Your task to perform on an android device: check android version Image 0: 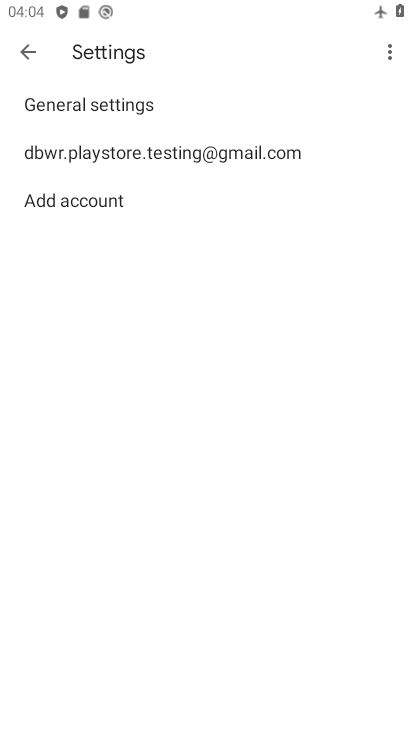
Step 0: press home button
Your task to perform on an android device: check android version Image 1: 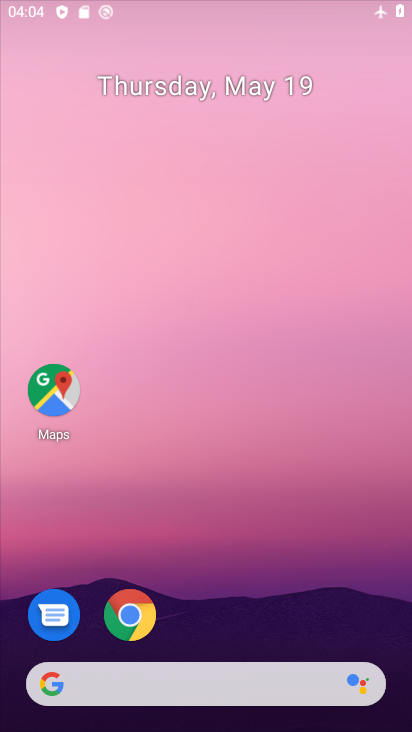
Step 1: click (249, 2)
Your task to perform on an android device: check android version Image 2: 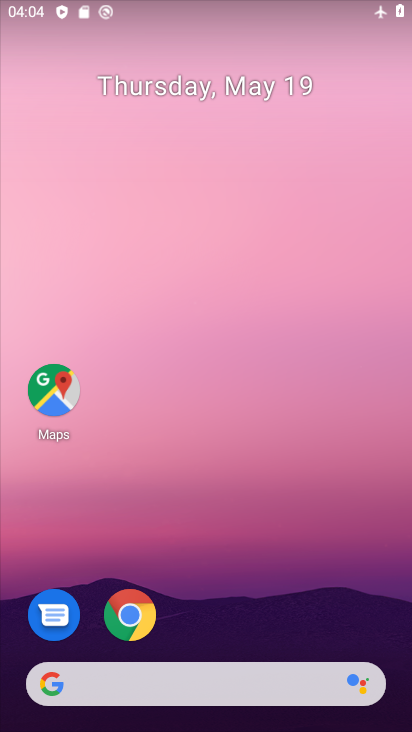
Step 2: drag from (210, 619) to (234, 43)
Your task to perform on an android device: check android version Image 3: 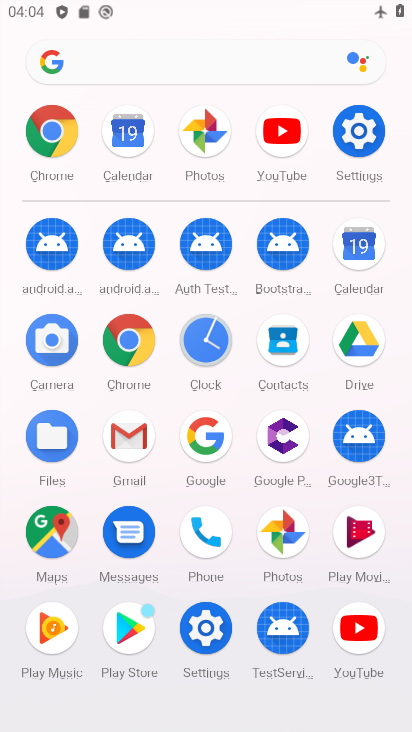
Step 3: click (364, 127)
Your task to perform on an android device: check android version Image 4: 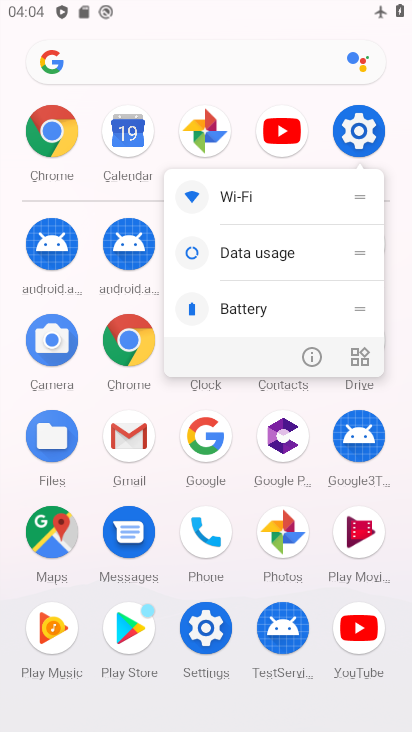
Step 4: click (360, 134)
Your task to perform on an android device: check android version Image 5: 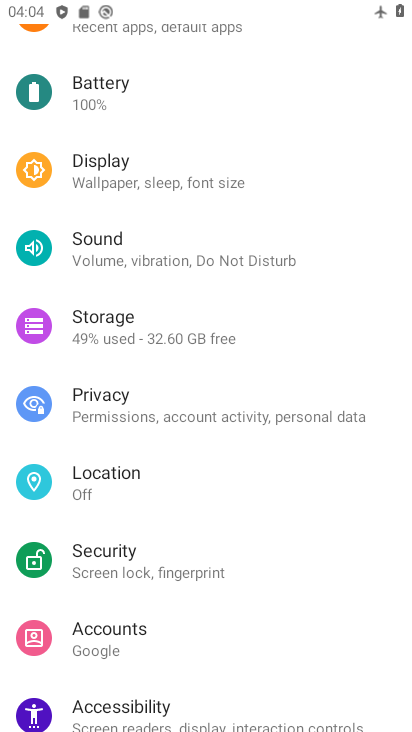
Step 5: drag from (219, 550) to (238, 107)
Your task to perform on an android device: check android version Image 6: 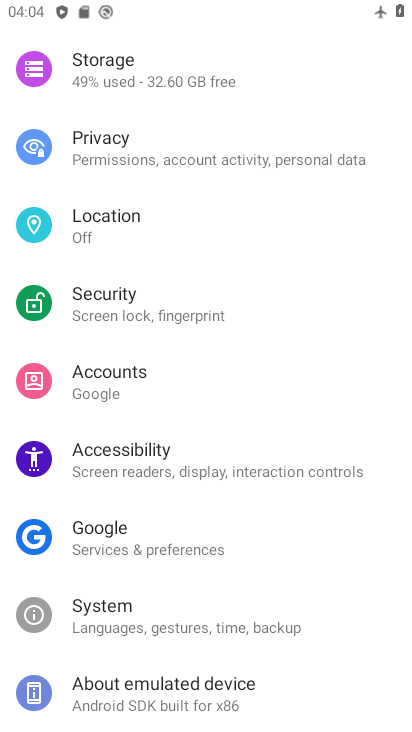
Step 6: click (134, 692)
Your task to perform on an android device: check android version Image 7: 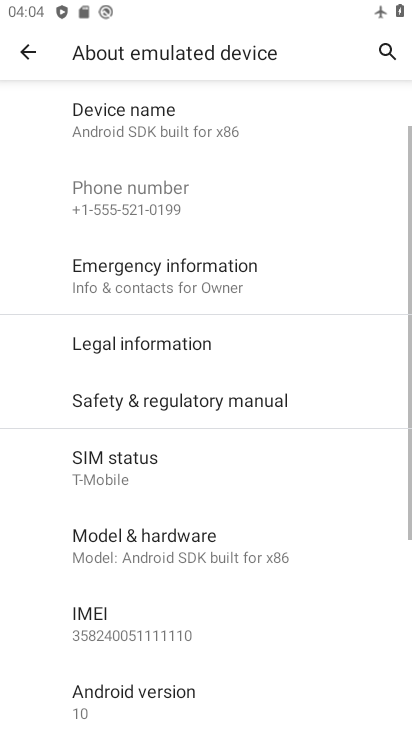
Step 7: drag from (229, 636) to (231, 416)
Your task to perform on an android device: check android version Image 8: 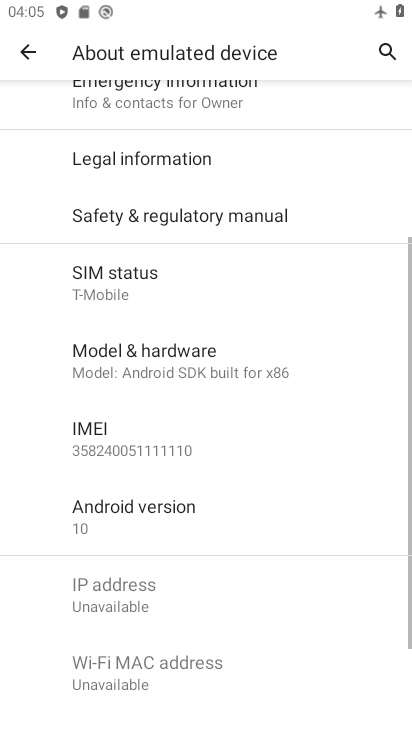
Step 8: click (121, 510)
Your task to perform on an android device: check android version Image 9: 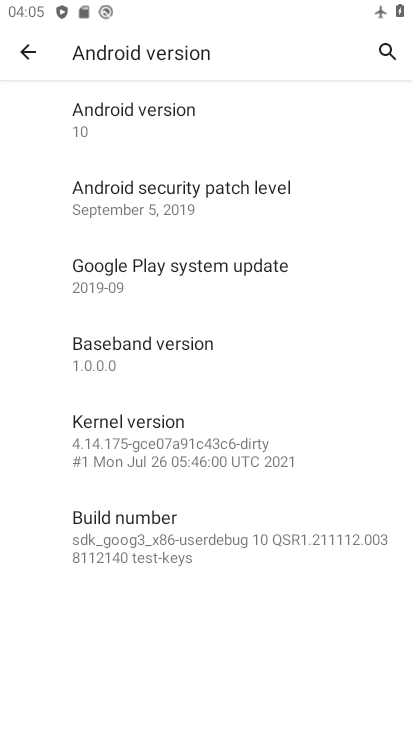
Step 9: task complete